Your task to perform on an android device: Do I have any events tomorrow? Image 0: 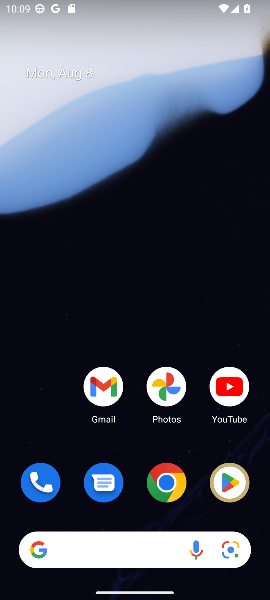
Step 0: drag from (141, 453) to (163, 207)
Your task to perform on an android device: Do I have any events tomorrow? Image 1: 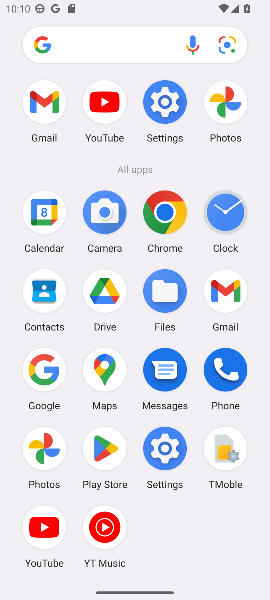
Step 1: click (37, 214)
Your task to perform on an android device: Do I have any events tomorrow? Image 2: 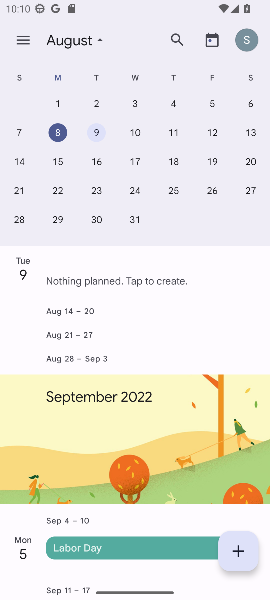
Step 2: click (91, 134)
Your task to perform on an android device: Do I have any events tomorrow? Image 3: 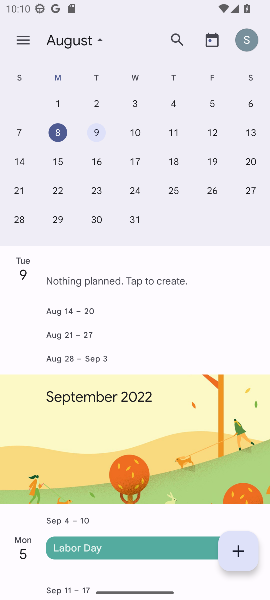
Step 3: task complete